Your task to perform on an android device: Open eBay Image 0: 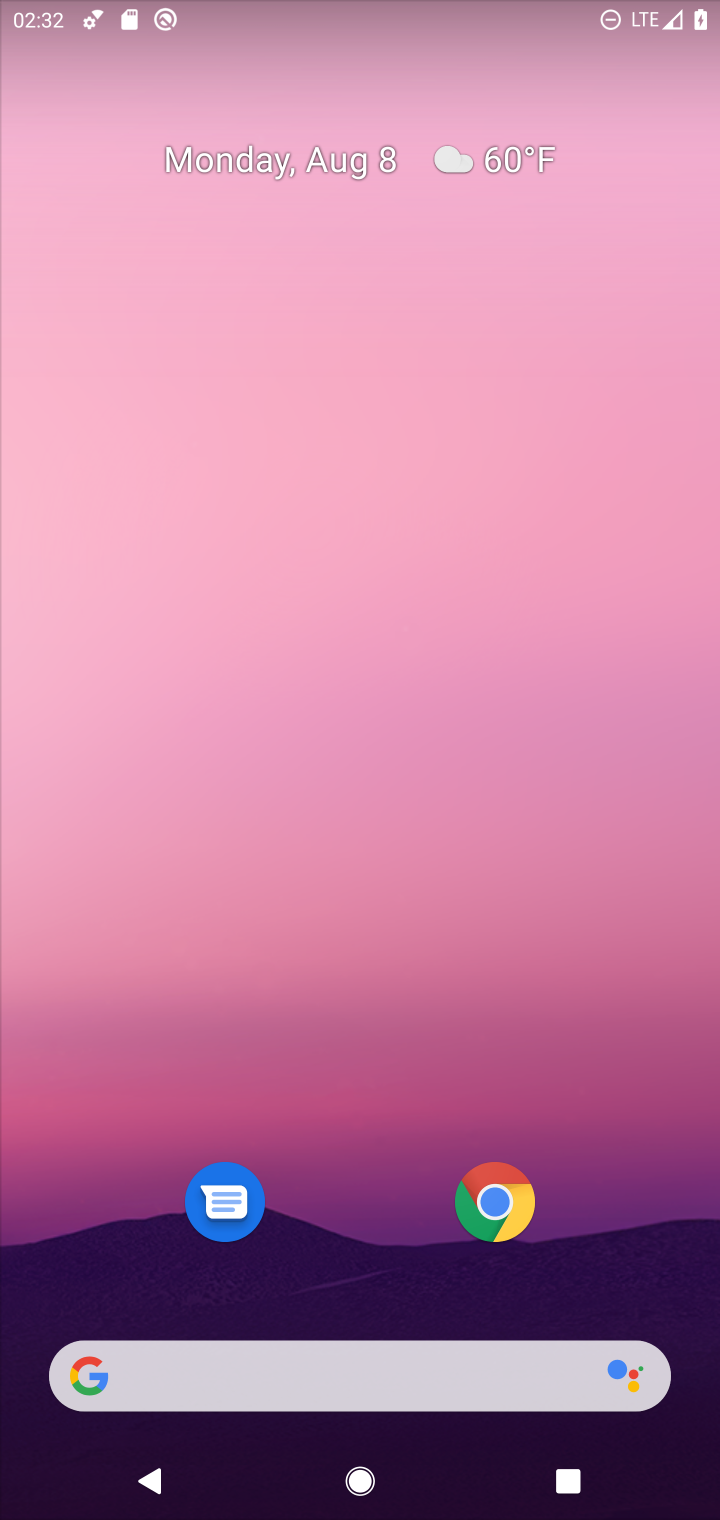
Step 0: press home button
Your task to perform on an android device: Open eBay Image 1: 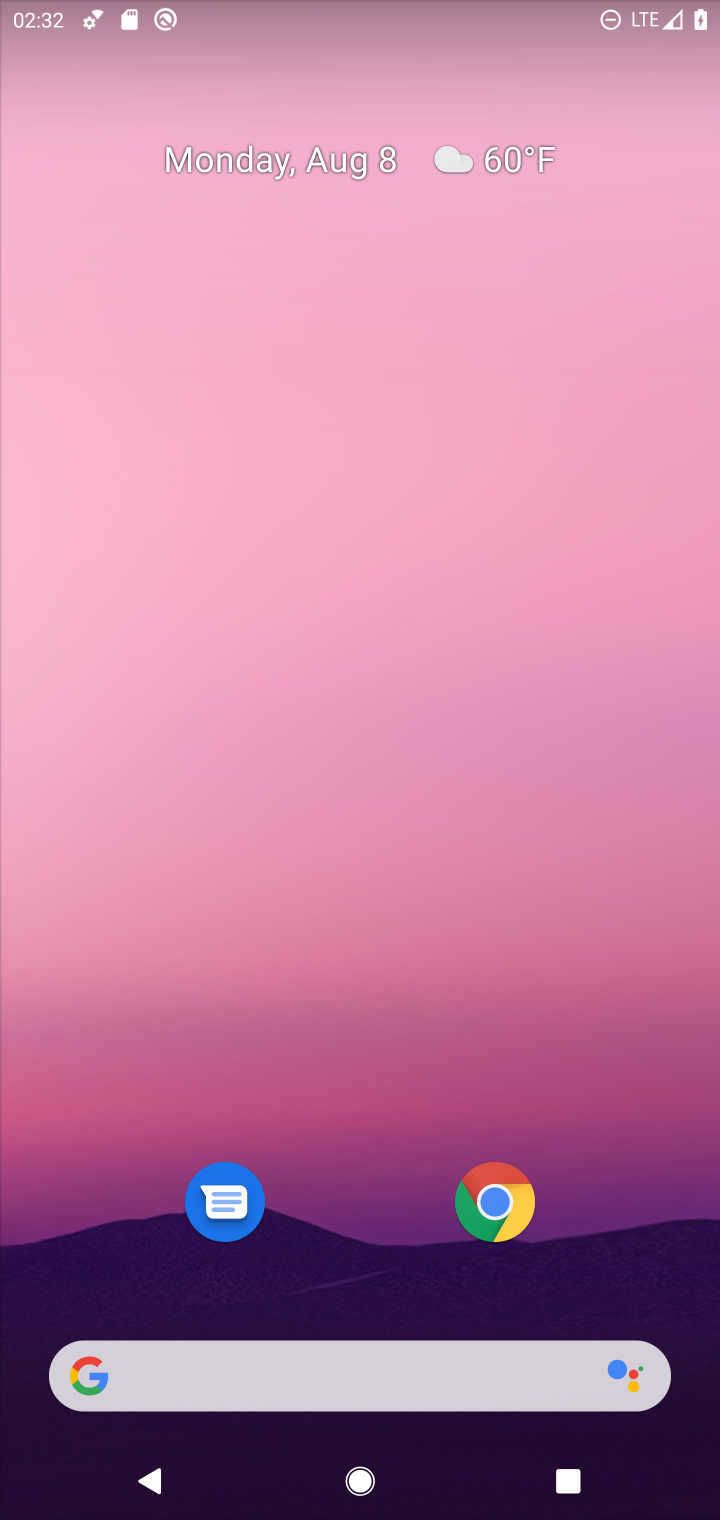
Step 1: drag from (601, 1250) to (644, 327)
Your task to perform on an android device: Open eBay Image 2: 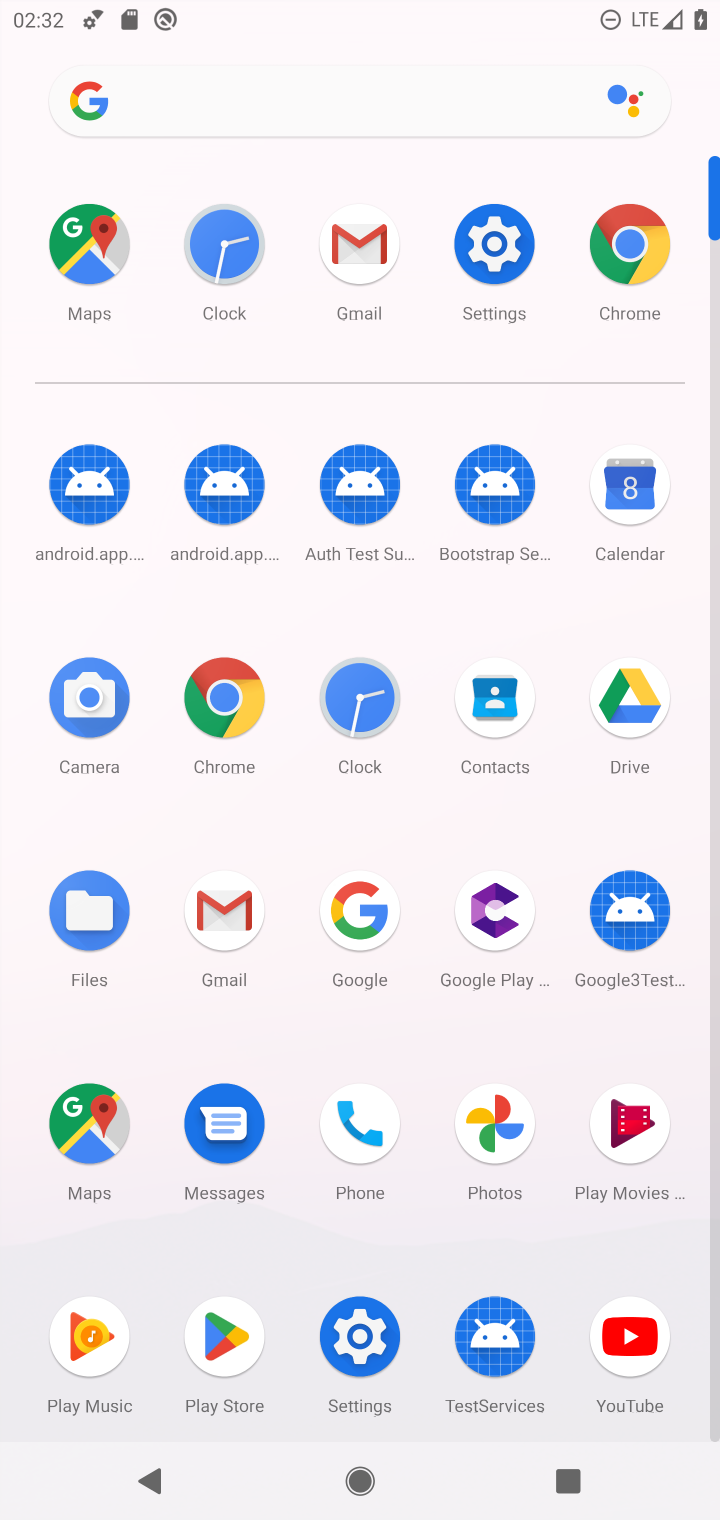
Step 2: click (226, 714)
Your task to perform on an android device: Open eBay Image 3: 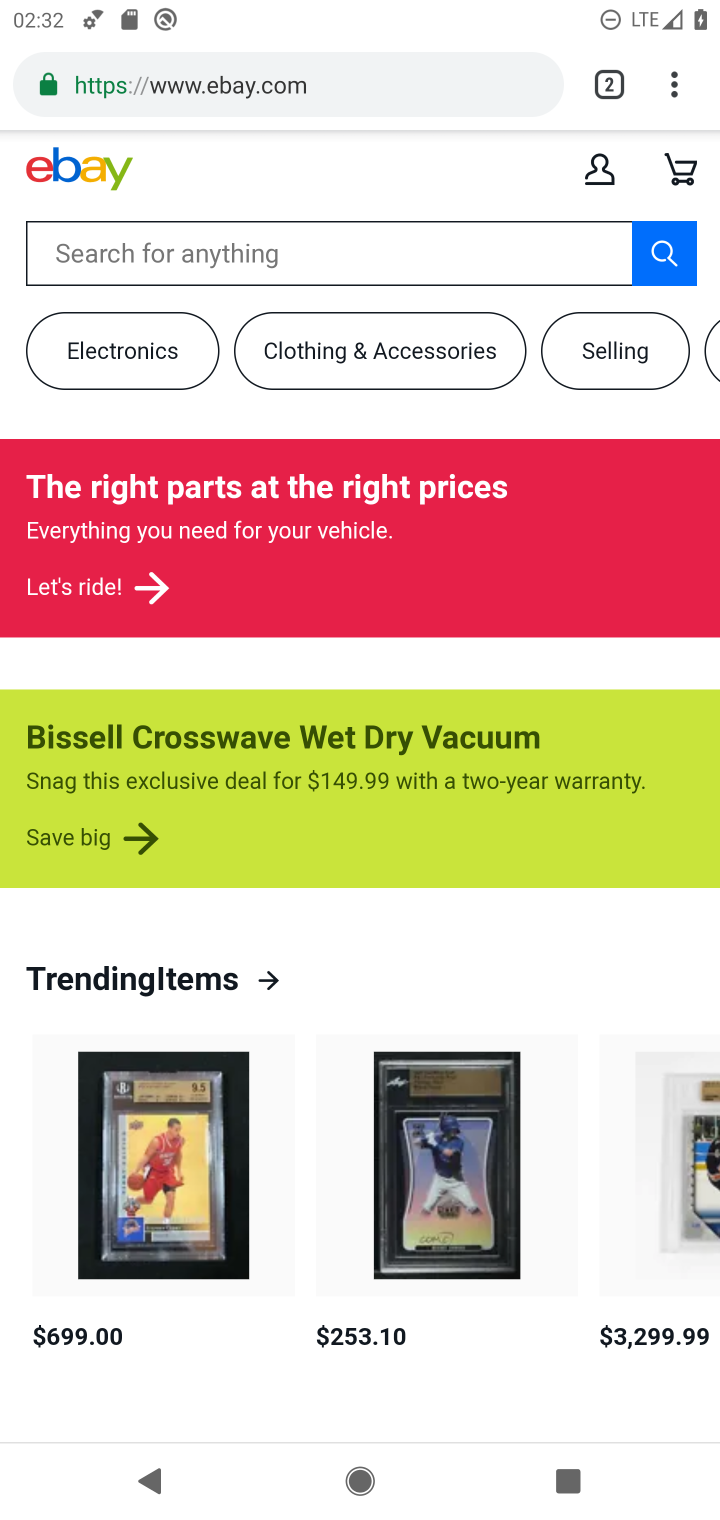
Step 3: click (349, 72)
Your task to perform on an android device: Open eBay Image 4: 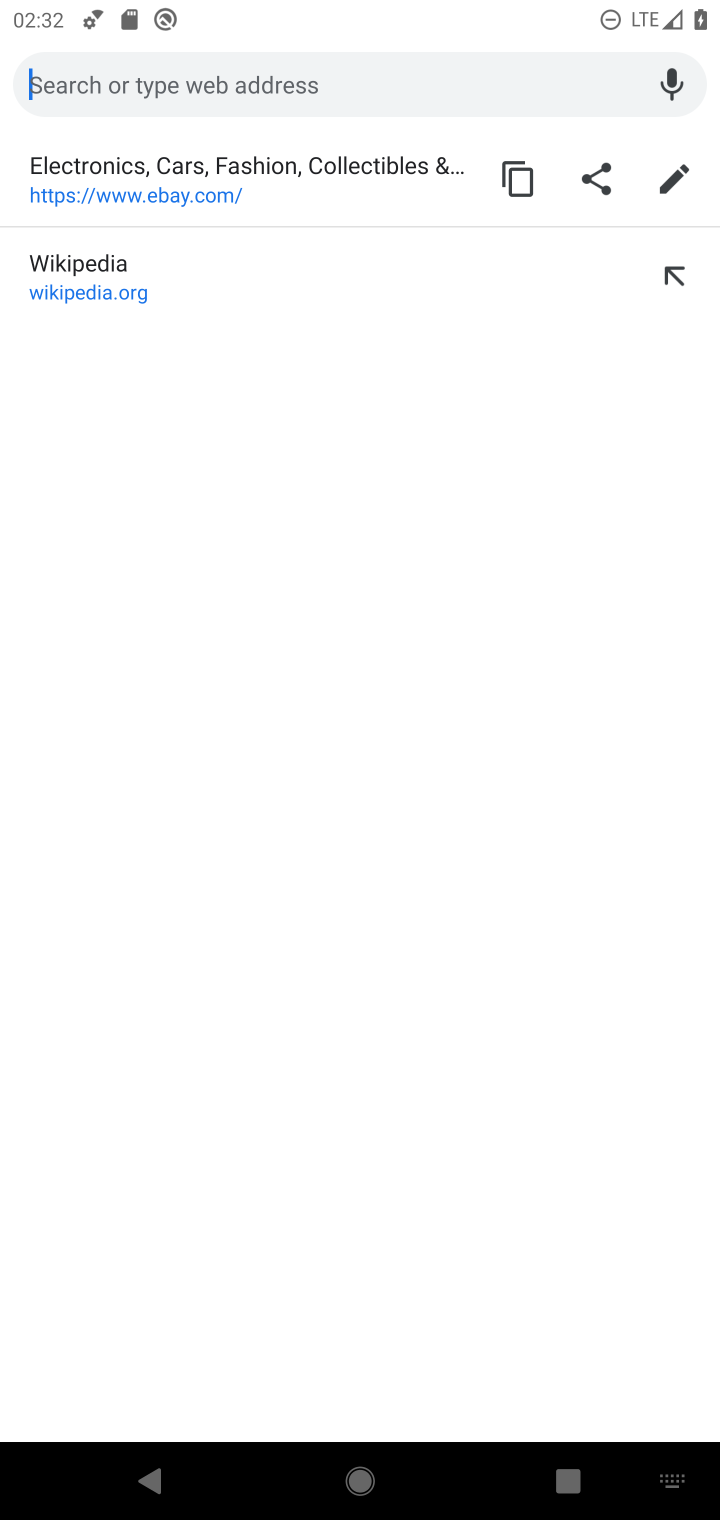
Step 4: type "ebay"
Your task to perform on an android device: Open eBay Image 5: 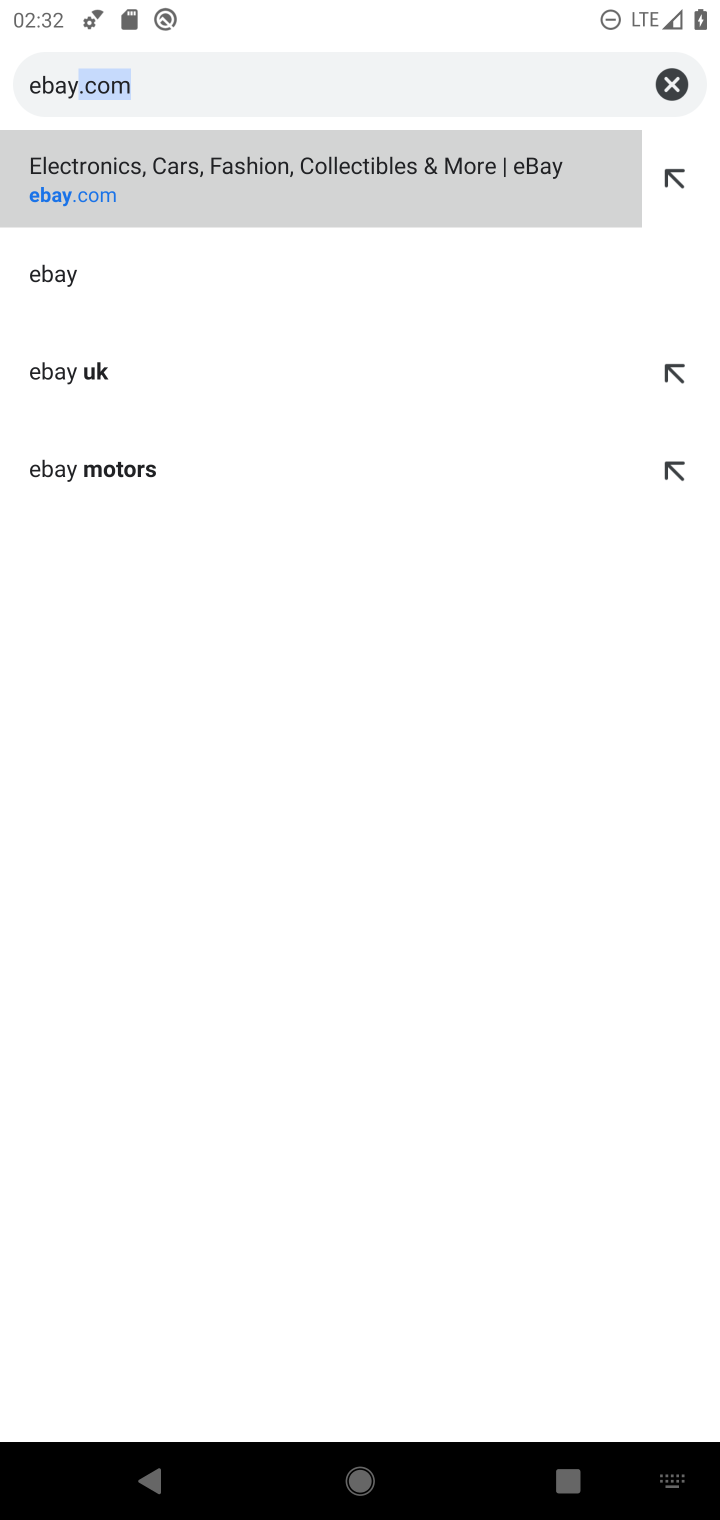
Step 5: click (338, 169)
Your task to perform on an android device: Open eBay Image 6: 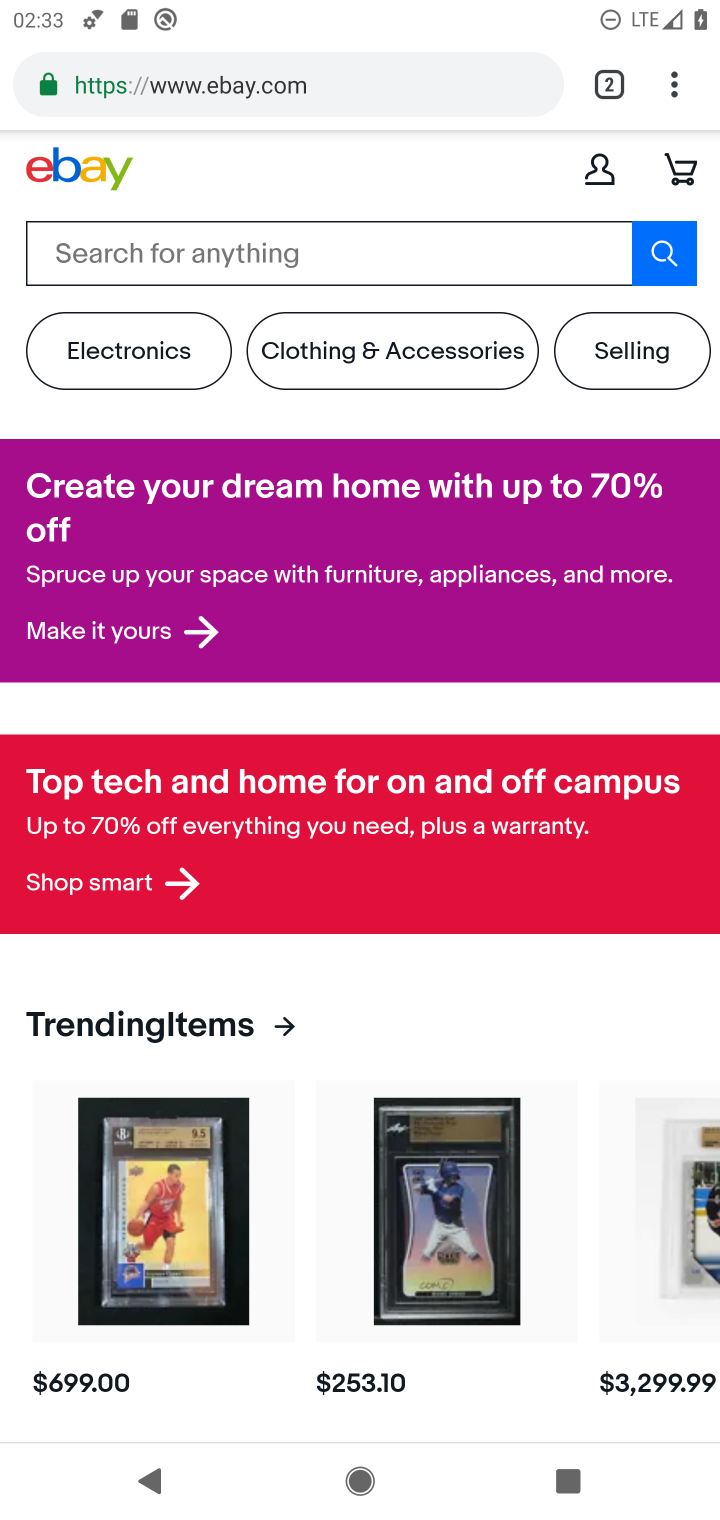
Step 6: task complete